Your task to perform on an android device: open app "Firefox Browser" Image 0: 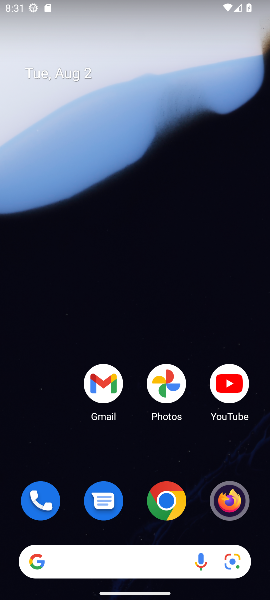
Step 0: click (195, 139)
Your task to perform on an android device: open app "Firefox Browser" Image 1: 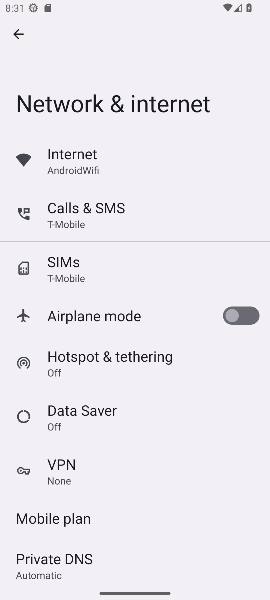
Step 1: drag from (56, 500) to (198, 0)
Your task to perform on an android device: open app "Firefox Browser" Image 2: 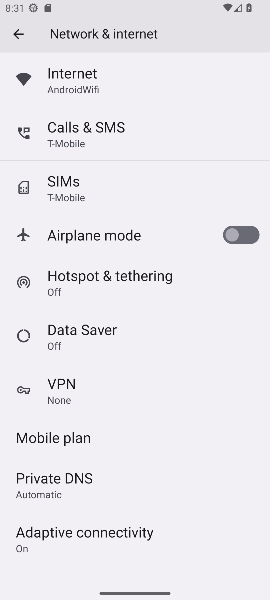
Step 2: drag from (136, 461) to (183, 0)
Your task to perform on an android device: open app "Firefox Browser" Image 3: 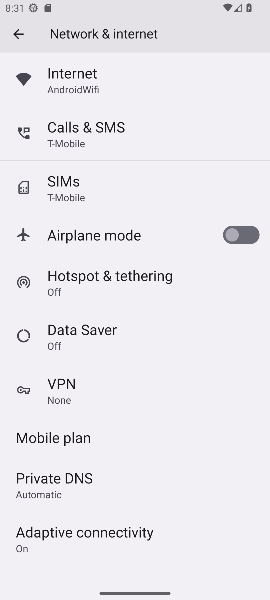
Step 3: drag from (103, 556) to (157, 58)
Your task to perform on an android device: open app "Firefox Browser" Image 4: 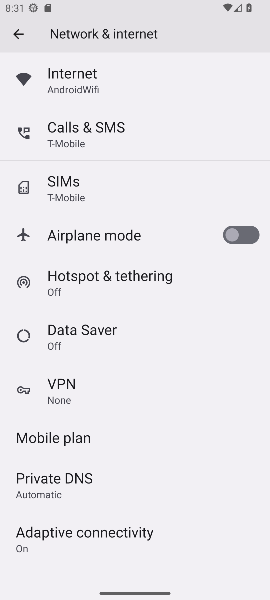
Step 4: press home button
Your task to perform on an android device: open app "Firefox Browser" Image 5: 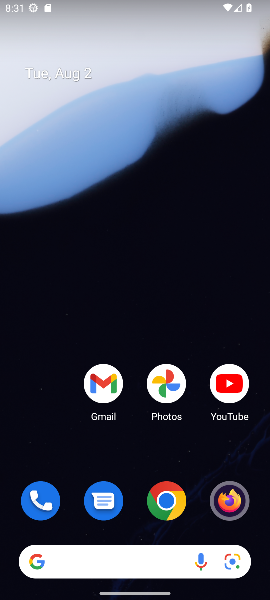
Step 5: drag from (99, 475) to (173, 43)
Your task to perform on an android device: open app "Firefox Browser" Image 6: 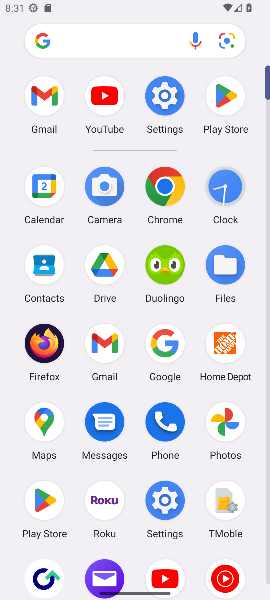
Step 6: click (222, 99)
Your task to perform on an android device: open app "Firefox Browser" Image 7: 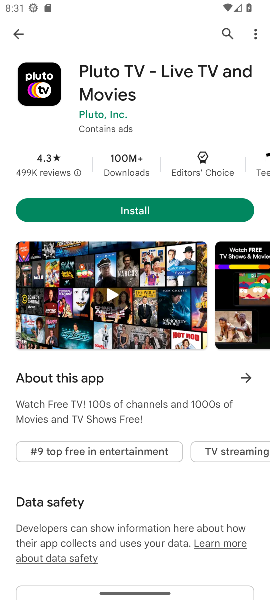
Step 7: click (229, 32)
Your task to perform on an android device: open app "Firefox Browser" Image 8: 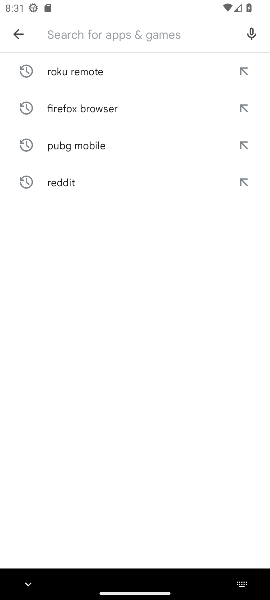
Step 8: type "Firefox Browser"
Your task to perform on an android device: open app "Firefox Browser" Image 9: 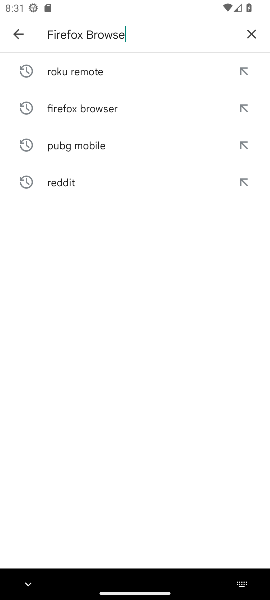
Step 9: type ""
Your task to perform on an android device: open app "Firefox Browser" Image 10: 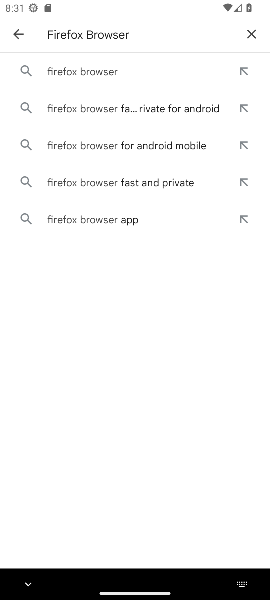
Step 10: click (60, 75)
Your task to perform on an android device: open app "Firefox Browser" Image 11: 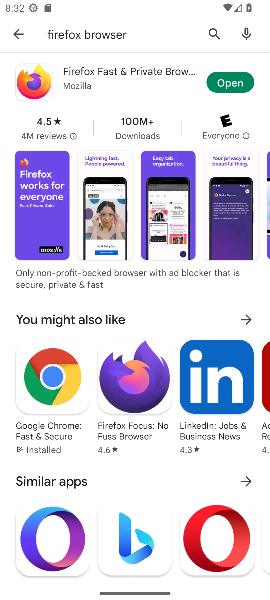
Step 11: click (253, 85)
Your task to perform on an android device: open app "Firefox Browser" Image 12: 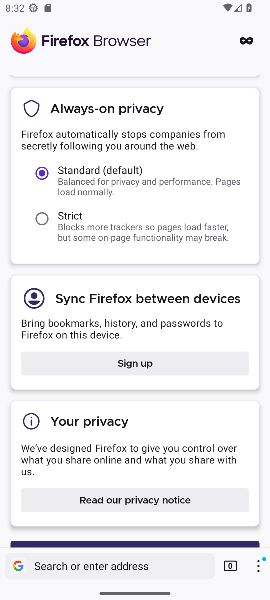
Step 12: task complete